Your task to perform on an android device: change your default location settings in chrome Image 0: 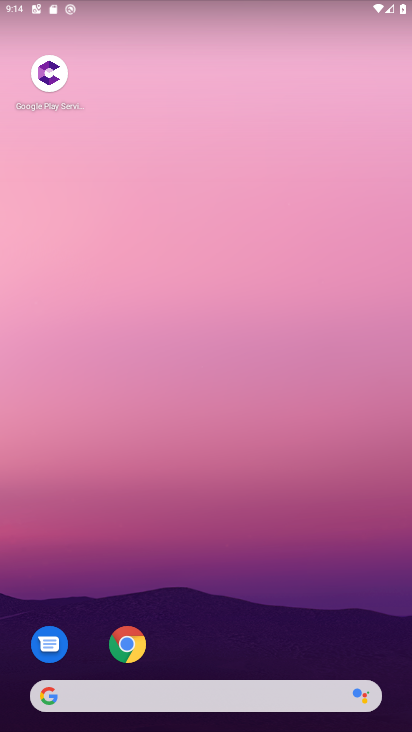
Step 0: drag from (208, 659) to (205, 57)
Your task to perform on an android device: change your default location settings in chrome Image 1: 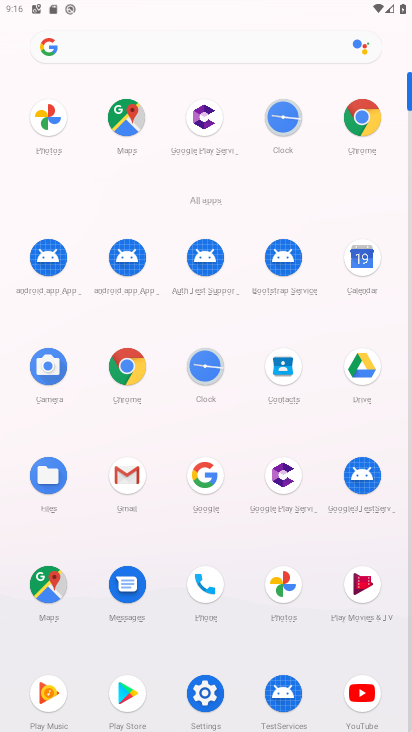
Step 1: click (350, 118)
Your task to perform on an android device: change your default location settings in chrome Image 2: 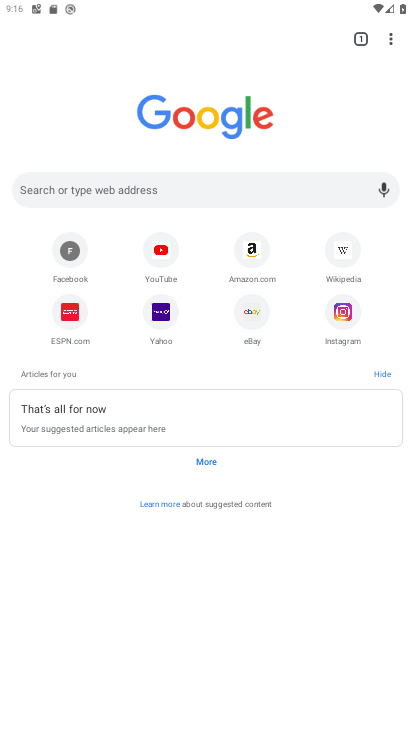
Step 2: click (388, 37)
Your task to perform on an android device: change your default location settings in chrome Image 3: 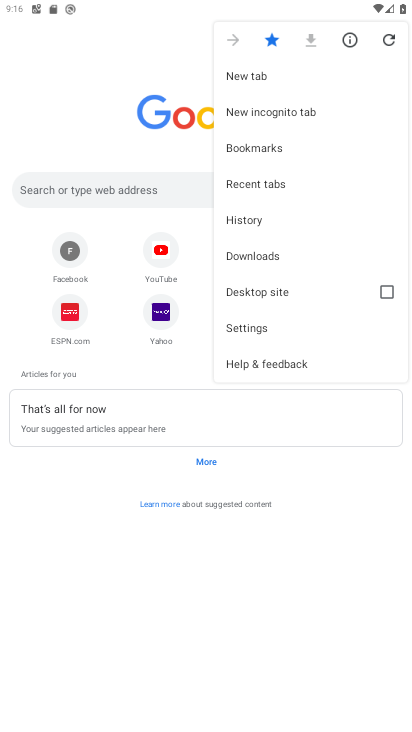
Step 3: click (282, 324)
Your task to perform on an android device: change your default location settings in chrome Image 4: 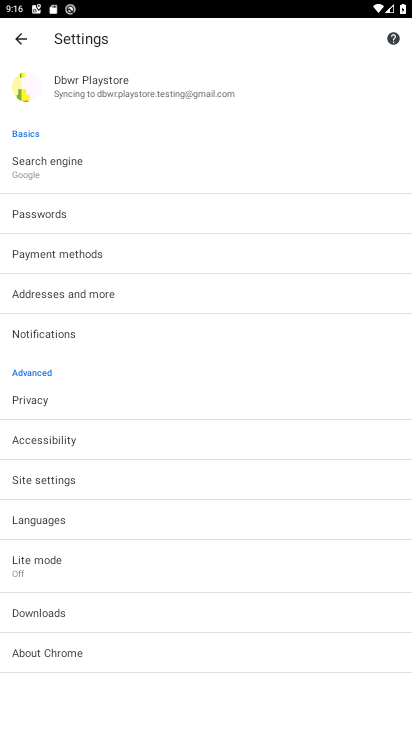
Step 4: click (166, 163)
Your task to perform on an android device: change your default location settings in chrome Image 5: 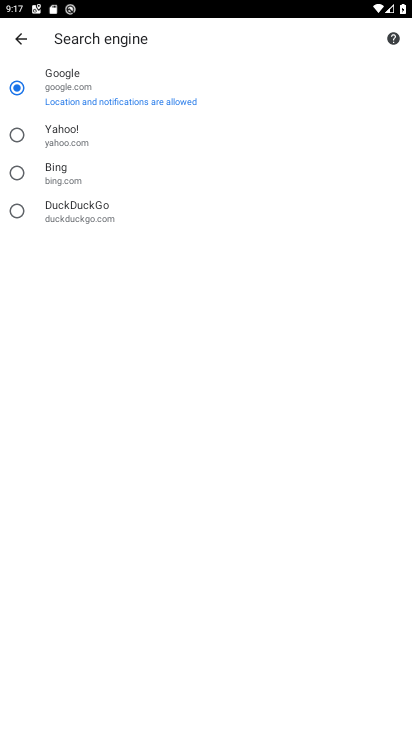
Step 5: click (100, 141)
Your task to perform on an android device: change your default location settings in chrome Image 6: 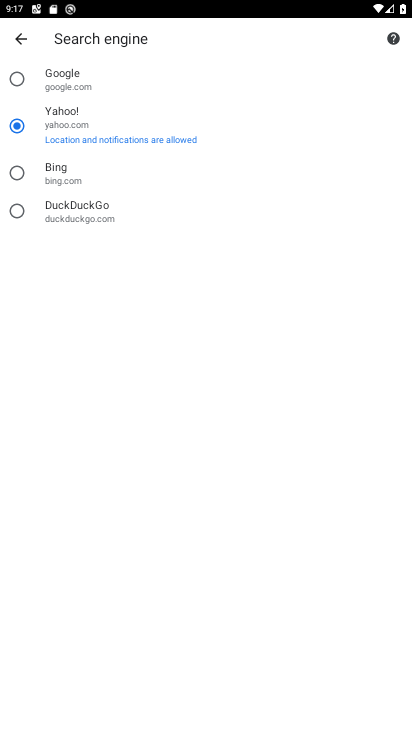
Step 6: task complete